Your task to perform on an android device: Go to CNN.com Image 0: 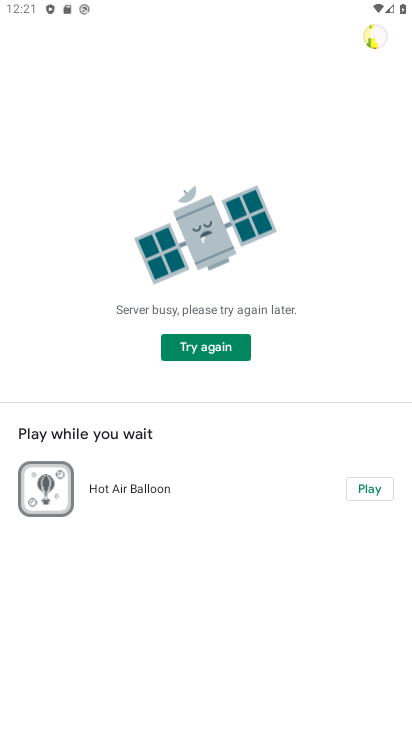
Step 0: press home button
Your task to perform on an android device: Go to CNN.com Image 1: 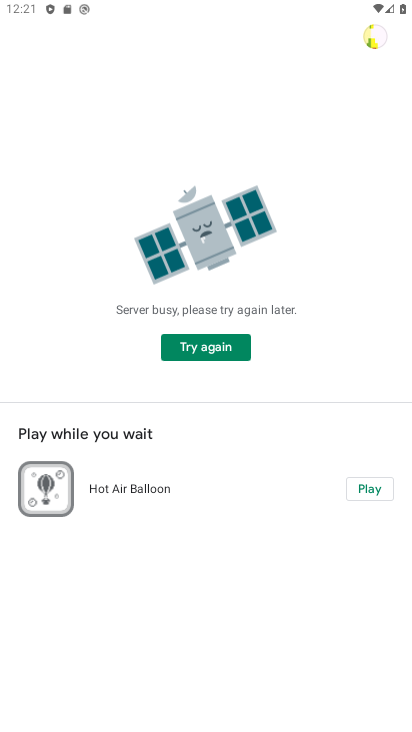
Step 1: press home button
Your task to perform on an android device: Go to CNN.com Image 2: 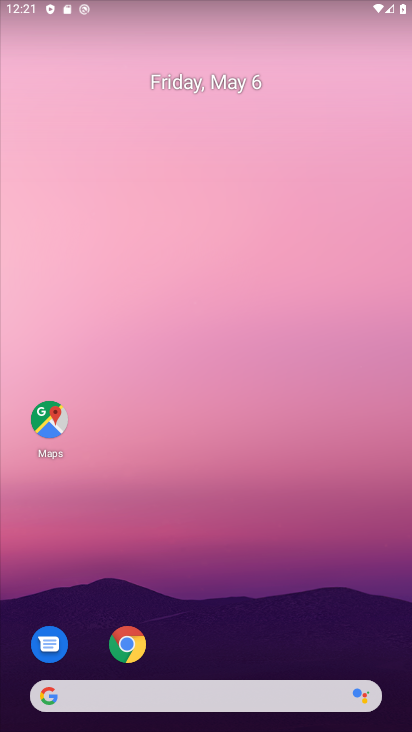
Step 2: drag from (290, 666) to (251, 52)
Your task to perform on an android device: Go to CNN.com Image 3: 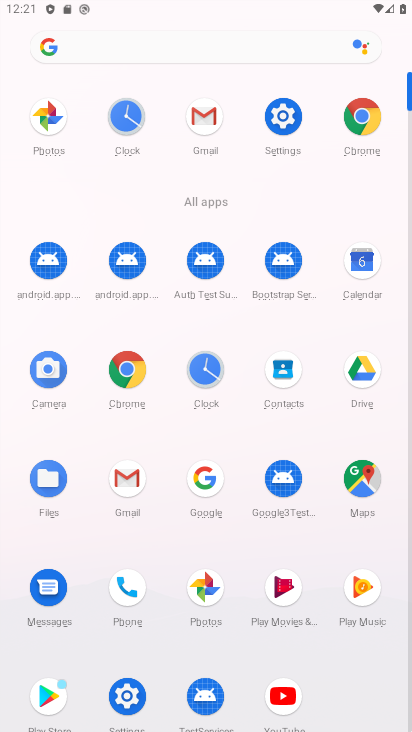
Step 3: click (123, 376)
Your task to perform on an android device: Go to CNN.com Image 4: 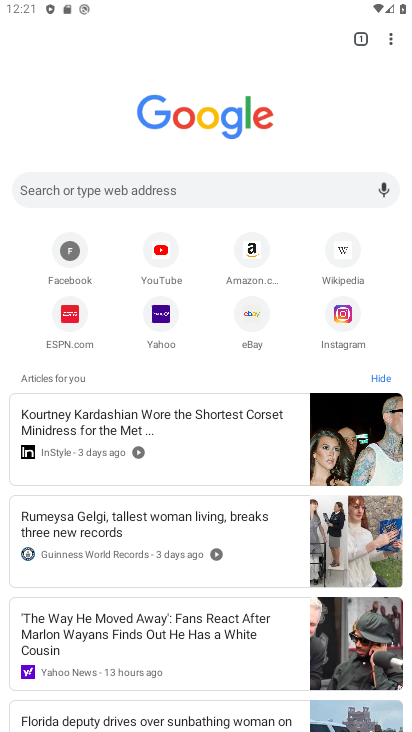
Step 4: click (286, 190)
Your task to perform on an android device: Go to CNN.com Image 5: 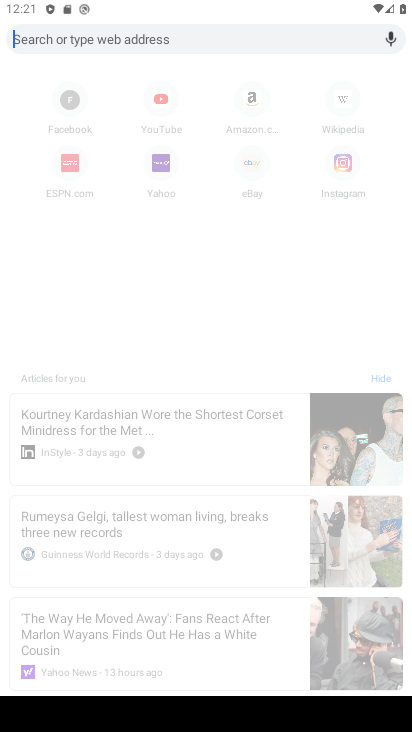
Step 5: type "cnn.com"
Your task to perform on an android device: Go to CNN.com Image 6: 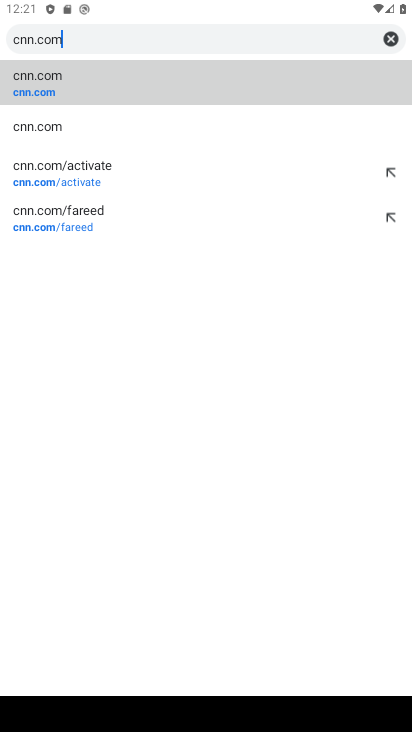
Step 6: click (43, 80)
Your task to perform on an android device: Go to CNN.com Image 7: 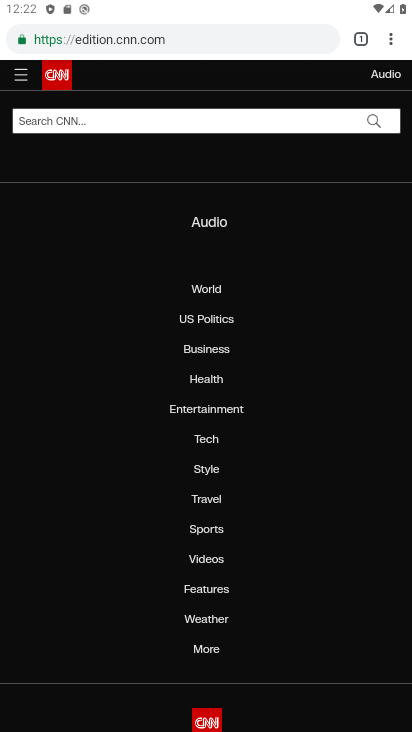
Step 7: task complete